Your task to perform on an android device: Is it going to rain tomorrow? Image 0: 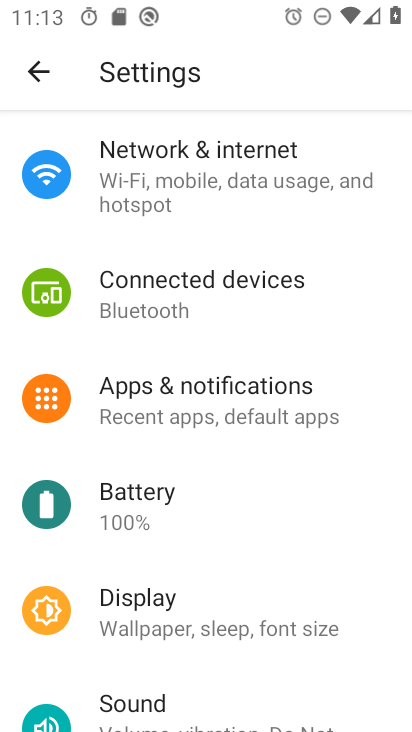
Step 0: press home button
Your task to perform on an android device: Is it going to rain tomorrow? Image 1: 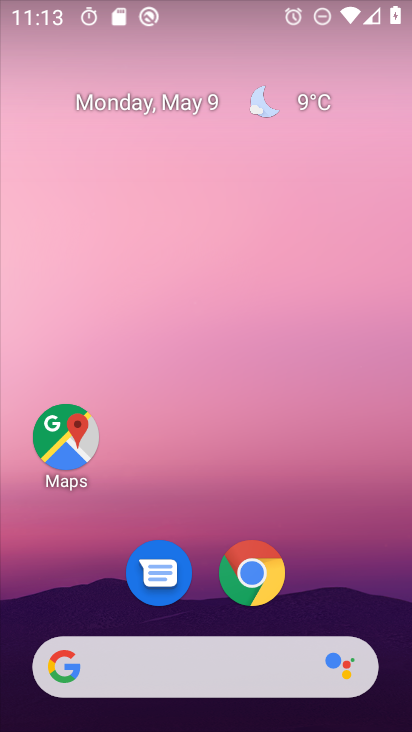
Step 1: click (314, 101)
Your task to perform on an android device: Is it going to rain tomorrow? Image 2: 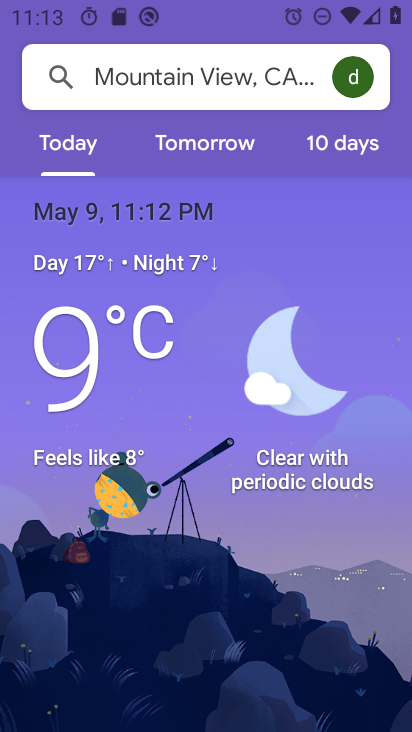
Step 2: click (219, 143)
Your task to perform on an android device: Is it going to rain tomorrow? Image 3: 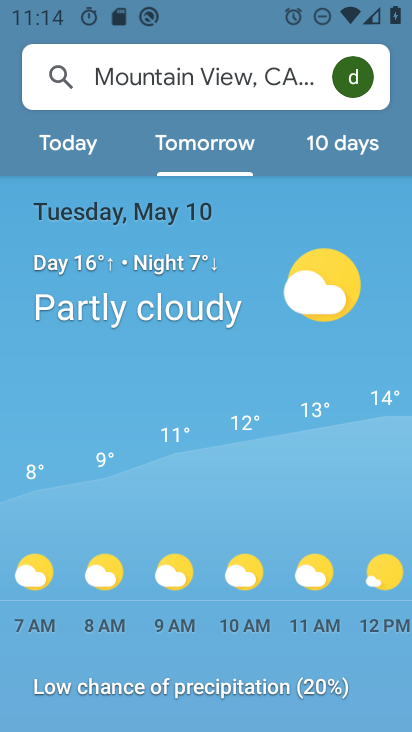
Step 3: task complete